Your task to perform on an android device: When is my next appointment? Image 0: 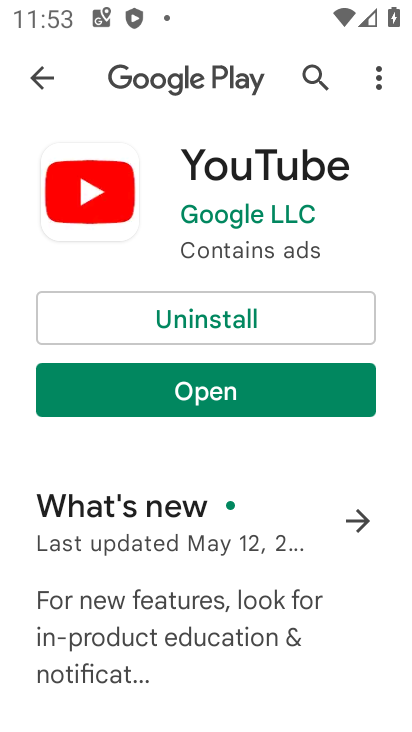
Step 0: press home button
Your task to perform on an android device: When is my next appointment? Image 1: 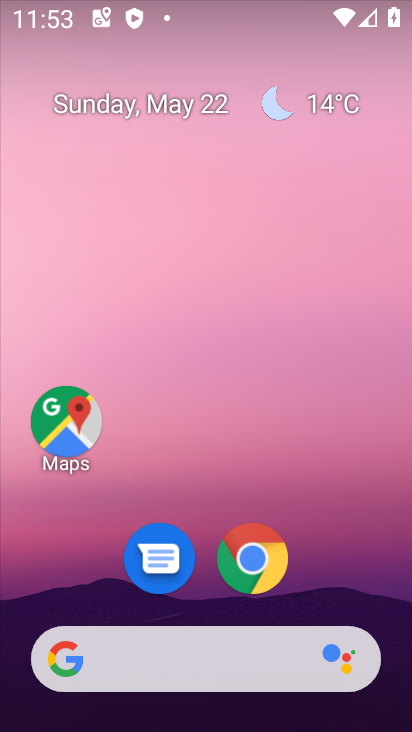
Step 1: drag from (334, 596) to (335, 27)
Your task to perform on an android device: When is my next appointment? Image 2: 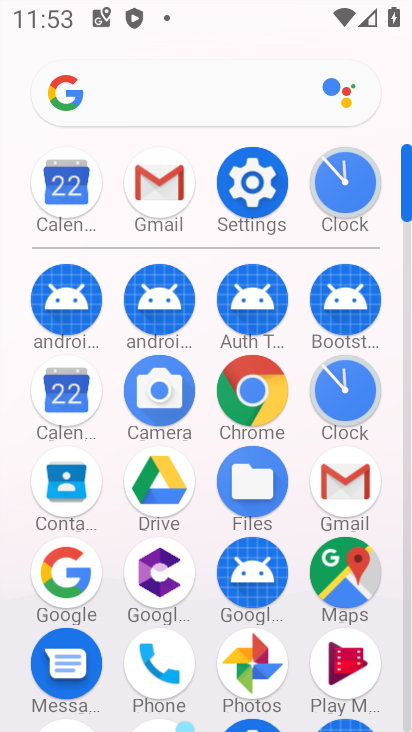
Step 2: click (59, 199)
Your task to perform on an android device: When is my next appointment? Image 3: 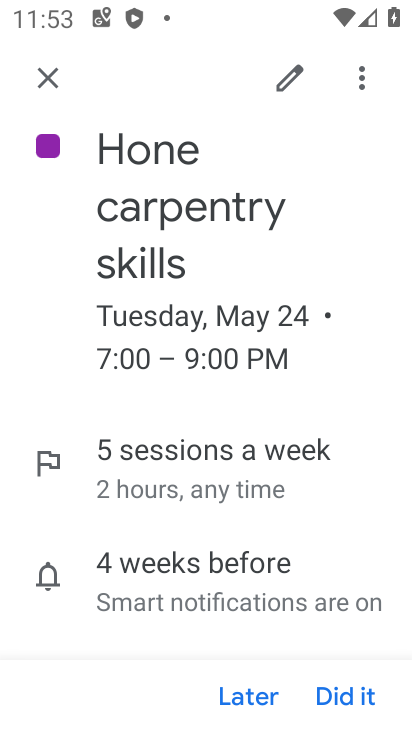
Step 3: click (46, 82)
Your task to perform on an android device: When is my next appointment? Image 4: 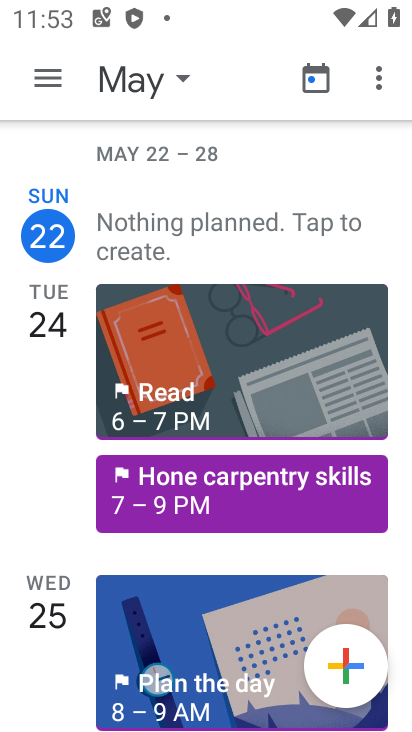
Step 4: click (211, 487)
Your task to perform on an android device: When is my next appointment? Image 5: 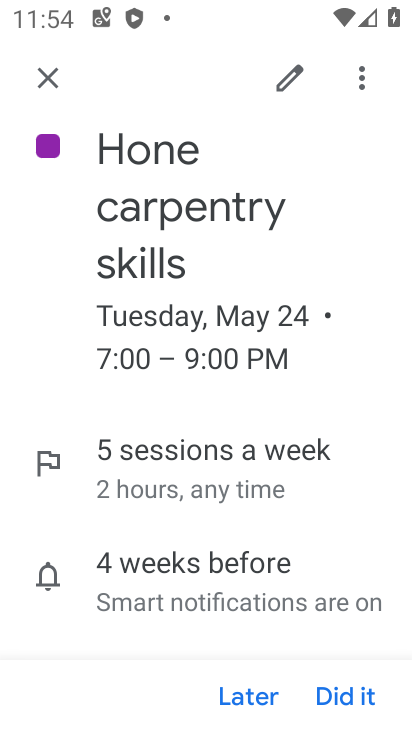
Step 5: task complete